Your task to perform on an android device: Open Chrome and go to the settings page Image 0: 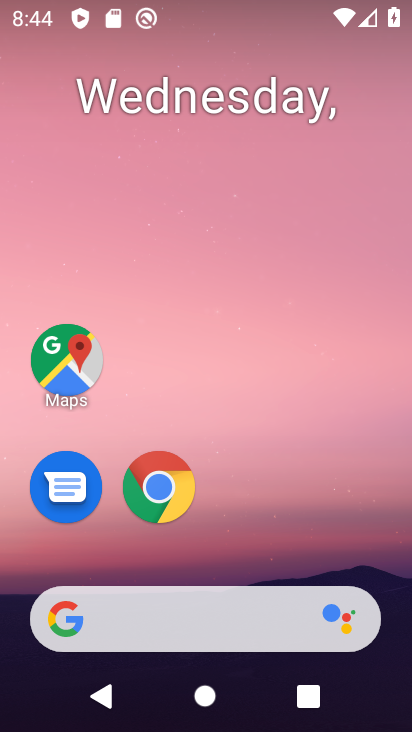
Step 0: click (154, 492)
Your task to perform on an android device: Open Chrome and go to the settings page Image 1: 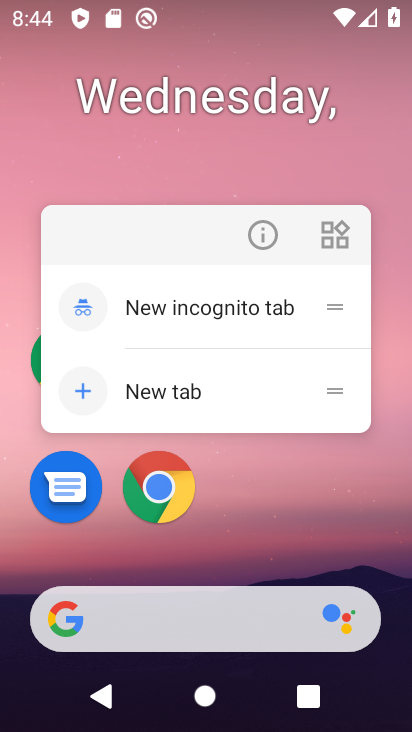
Step 1: click (159, 462)
Your task to perform on an android device: Open Chrome and go to the settings page Image 2: 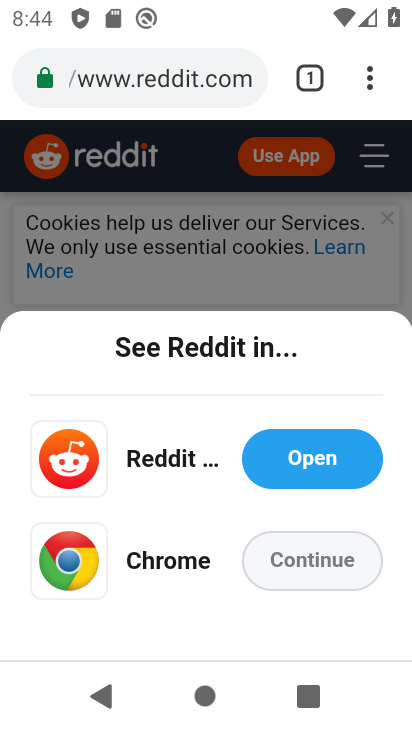
Step 2: task complete